Your task to perform on an android device: What is the news today? Image 0: 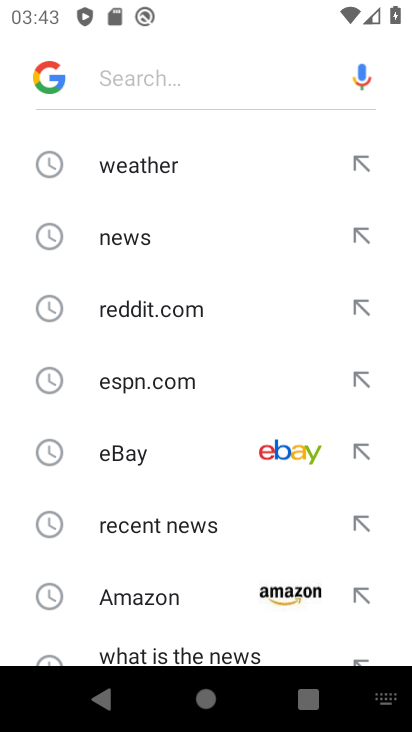
Step 0: type "news today?"
Your task to perform on an android device: What is the news today? Image 1: 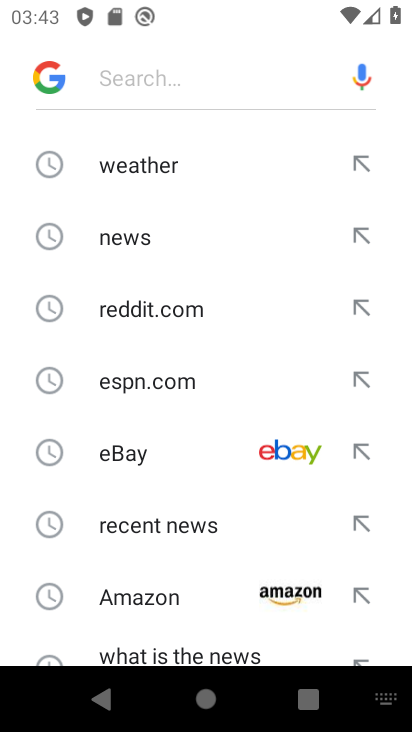
Step 1: click (164, 69)
Your task to perform on an android device: What is the news today? Image 2: 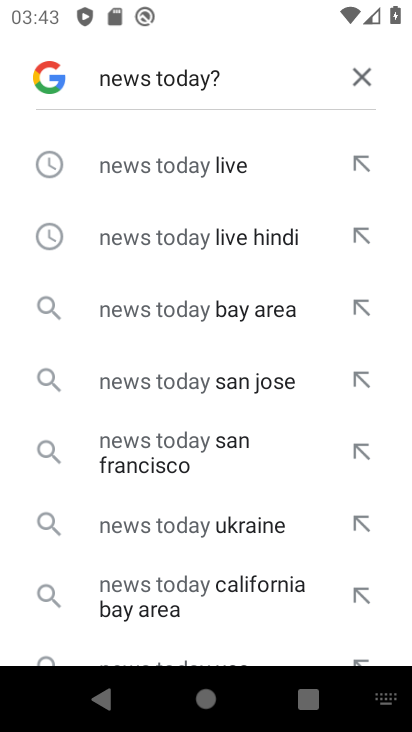
Step 2: click (368, 75)
Your task to perform on an android device: What is the news today? Image 3: 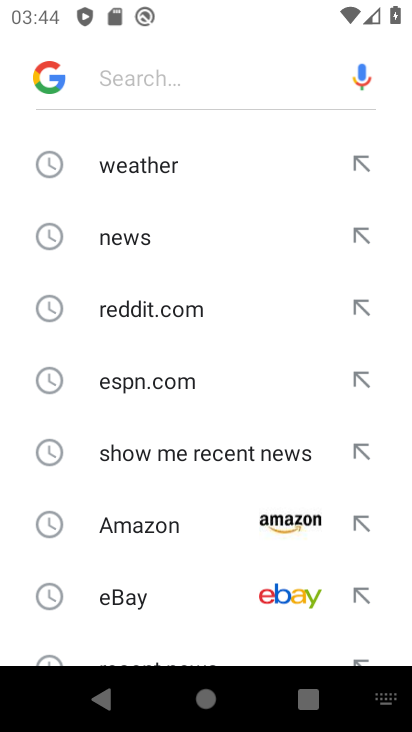
Step 3: type "news today"
Your task to perform on an android device: What is the news today? Image 4: 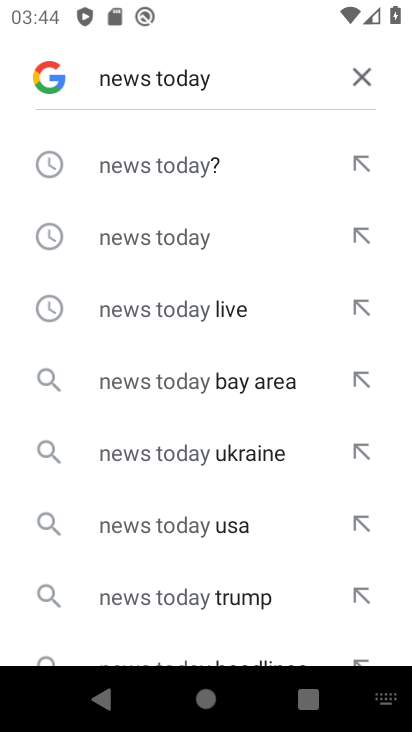
Step 4: click (166, 175)
Your task to perform on an android device: What is the news today? Image 5: 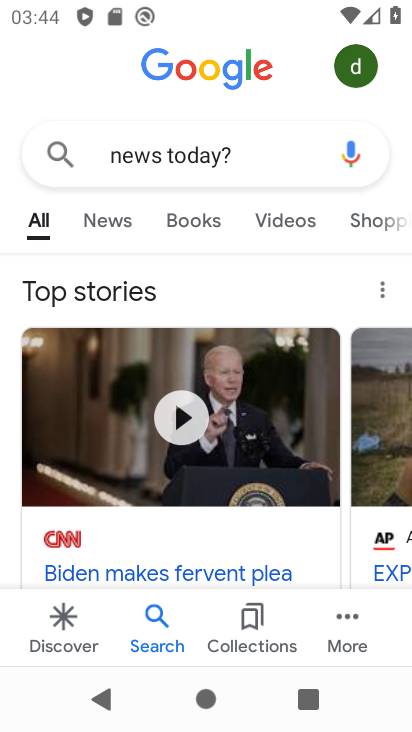
Step 5: task complete